Your task to perform on an android device: Open wifi settings Image 0: 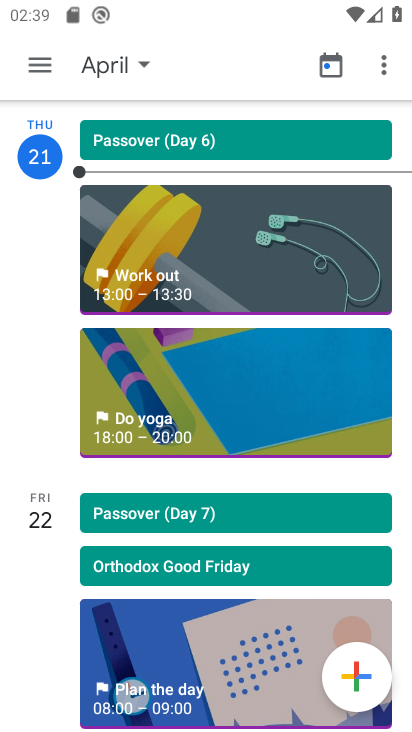
Step 0: click (410, 539)
Your task to perform on an android device: Open wifi settings Image 1: 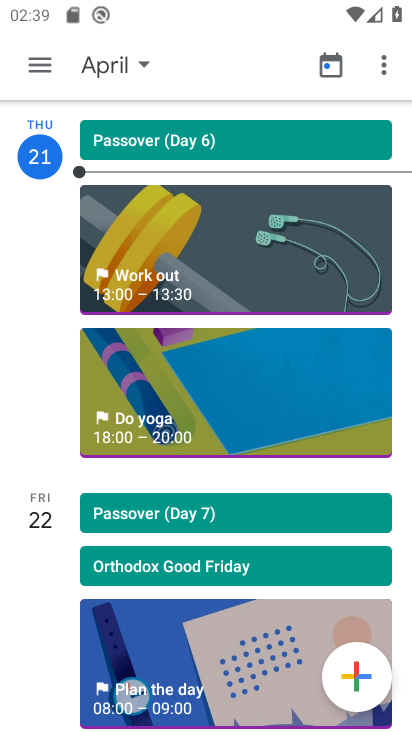
Step 1: press home button
Your task to perform on an android device: Open wifi settings Image 2: 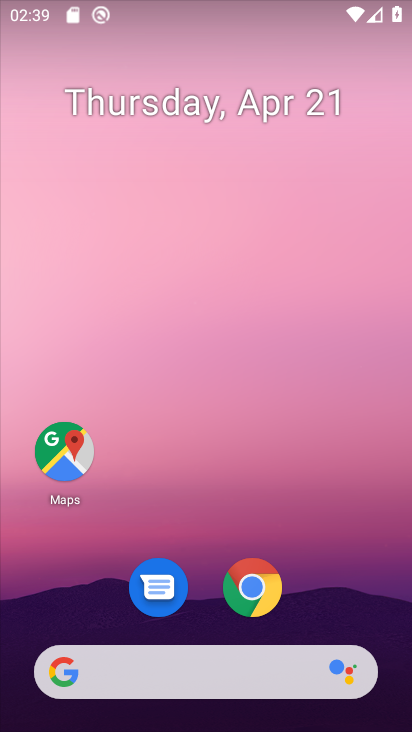
Step 2: drag from (351, 585) to (385, 222)
Your task to perform on an android device: Open wifi settings Image 3: 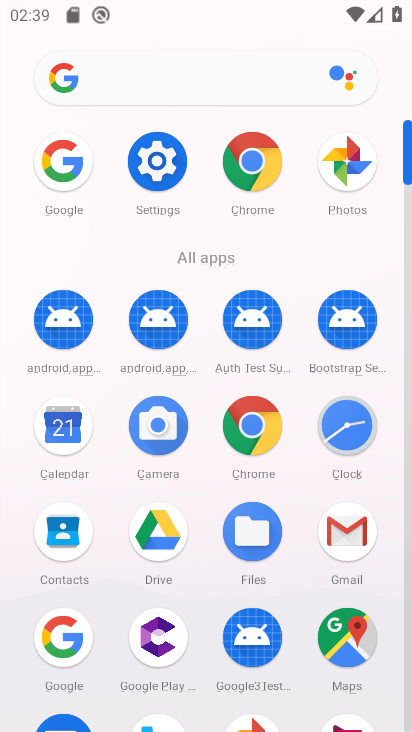
Step 3: click (162, 174)
Your task to perform on an android device: Open wifi settings Image 4: 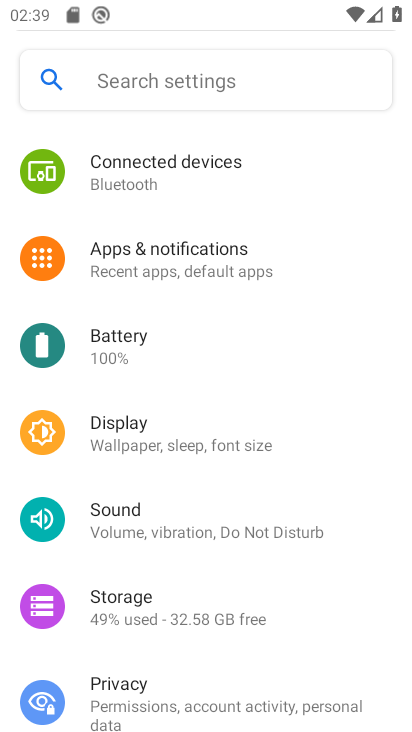
Step 4: drag from (378, 522) to (383, 340)
Your task to perform on an android device: Open wifi settings Image 5: 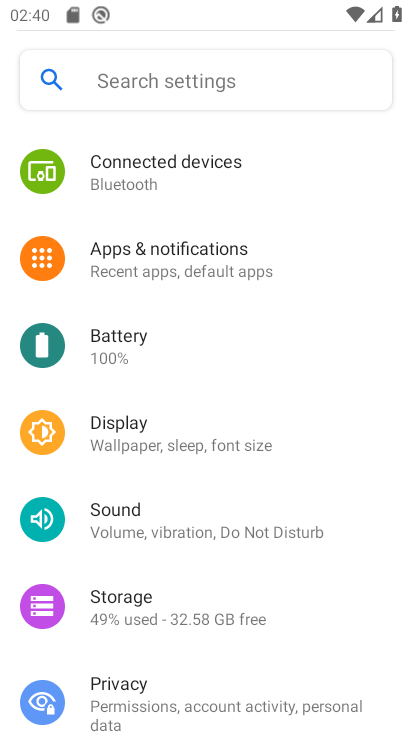
Step 5: drag from (338, 279) to (340, 477)
Your task to perform on an android device: Open wifi settings Image 6: 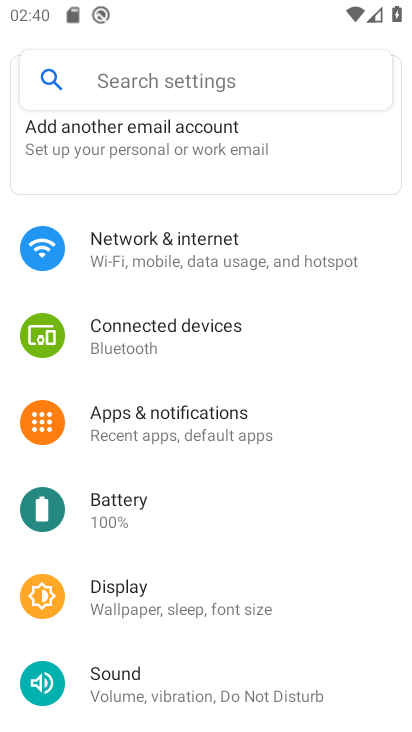
Step 6: click (249, 257)
Your task to perform on an android device: Open wifi settings Image 7: 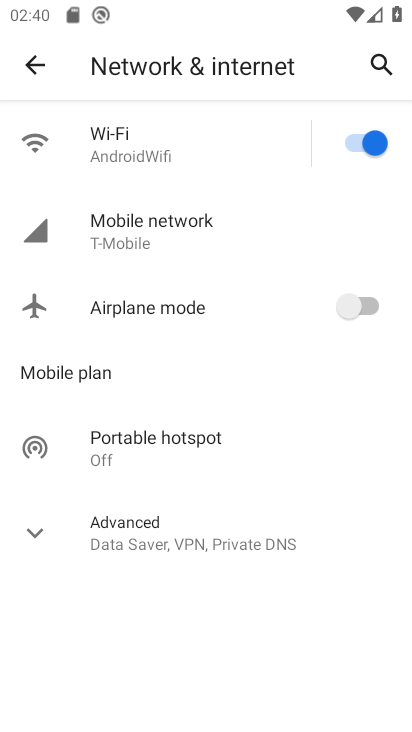
Step 7: click (147, 147)
Your task to perform on an android device: Open wifi settings Image 8: 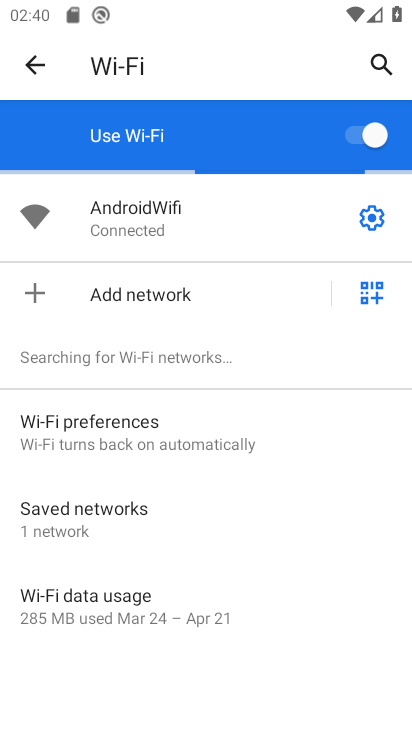
Step 8: task complete